Your task to perform on an android device: turn on priority inbox in the gmail app Image 0: 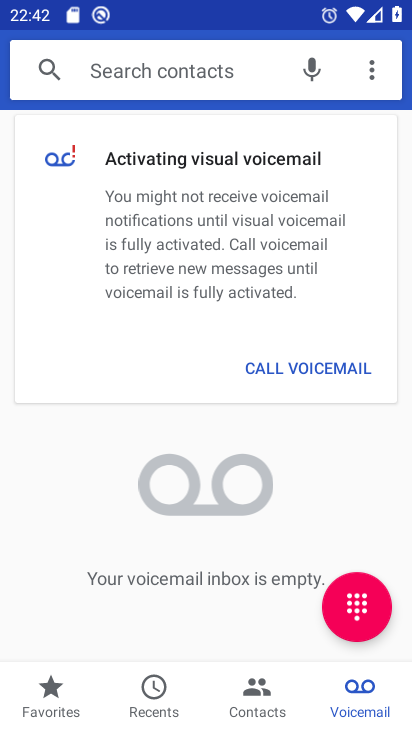
Step 0: press home button
Your task to perform on an android device: turn on priority inbox in the gmail app Image 1: 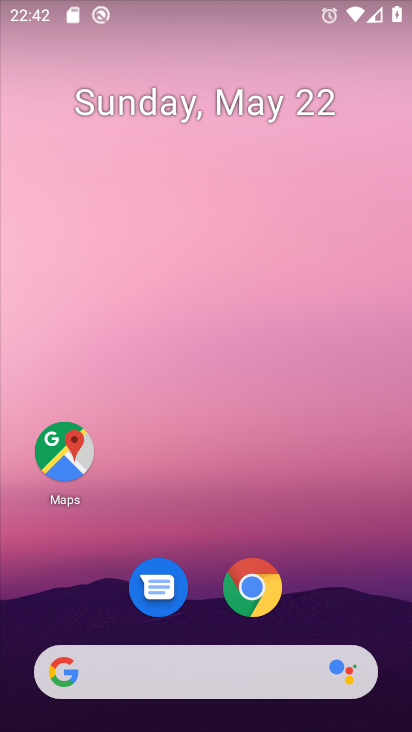
Step 1: drag from (185, 481) to (215, 18)
Your task to perform on an android device: turn on priority inbox in the gmail app Image 2: 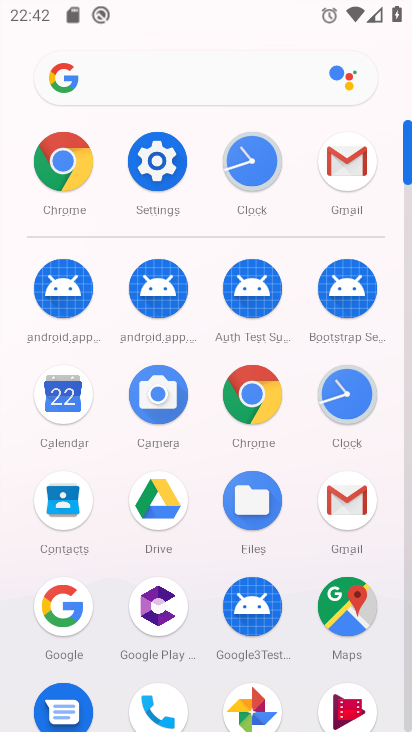
Step 2: click (335, 160)
Your task to perform on an android device: turn on priority inbox in the gmail app Image 3: 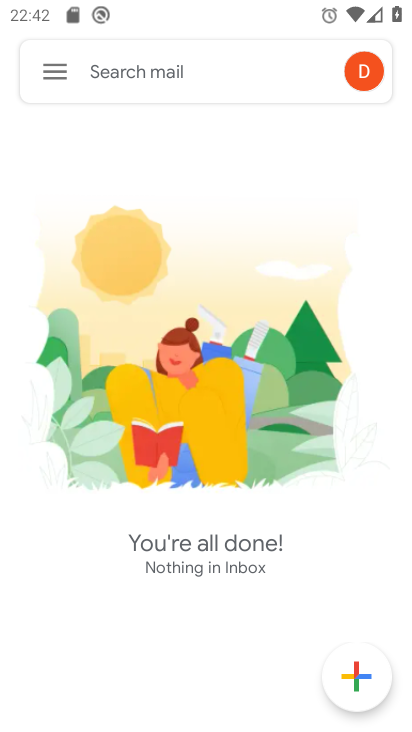
Step 3: click (57, 71)
Your task to perform on an android device: turn on priority inbox in the gmail app Image 4: 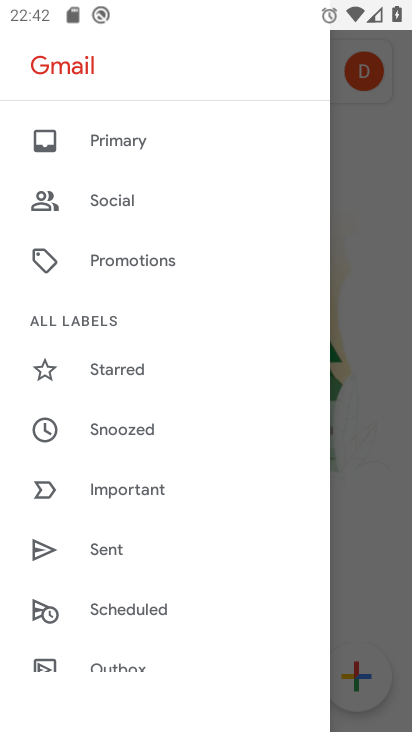
Step 4: drag from (174, 539) to (230, 151)
Your task to perform on an android device: turn on priority inbox in the gmail app Image 5: 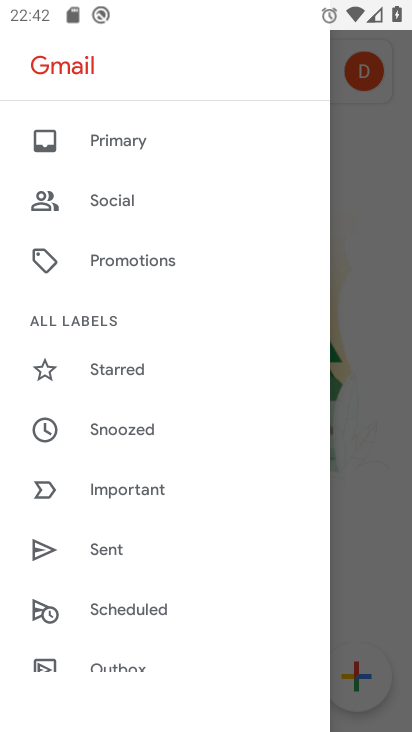
Step 5: drag from (162, 607) to (192, 22)
Your task to perform on an android device: turn on priority inbox in the gmail app Image 6: 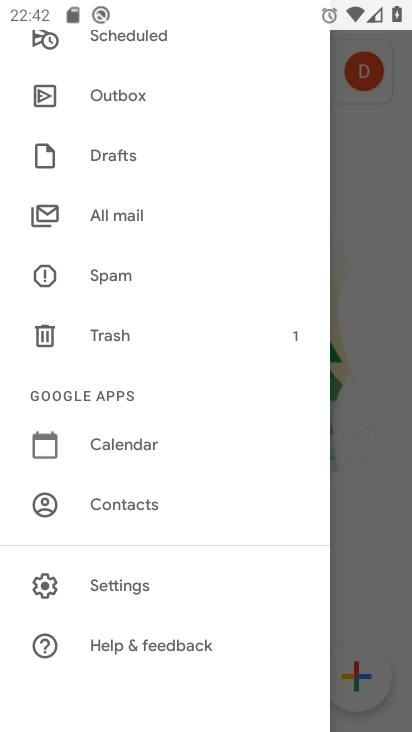
Step 6: click (138, 585)
Your task to perform on an android device: turn on priority inbox in the gmail app Image 7: 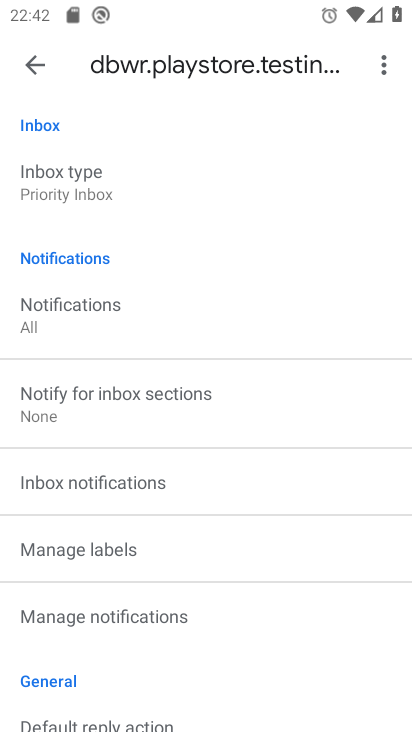
Step 7: task complete